Your task to perform on an android device: Go to Google maps Image 0: 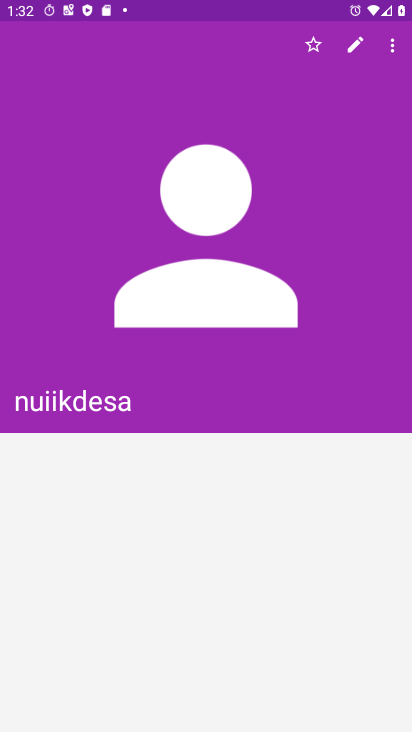
Step 0: press home button
Your task to perform on an android device: Go to Google maps Image 1: 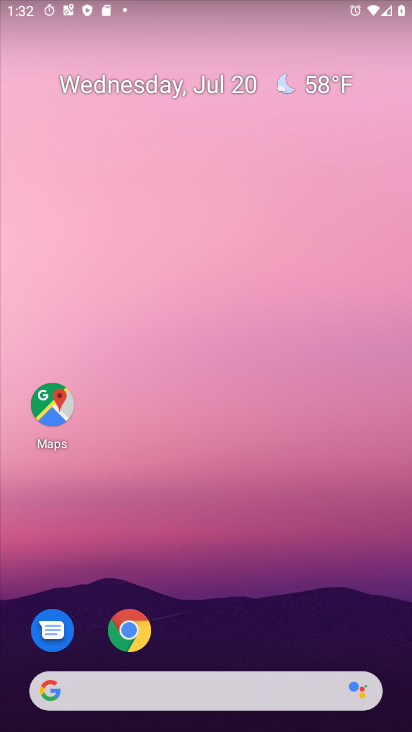
Step 1: click (38, 389)
Your task to perform on an android device: Go to Google maps Image 2: 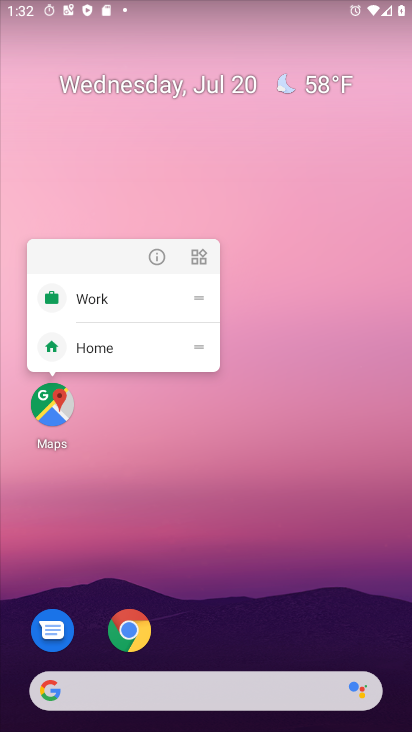
Step 2: click (55, 411)
Your task to perform on an android device: Go to Google maps Image 3: 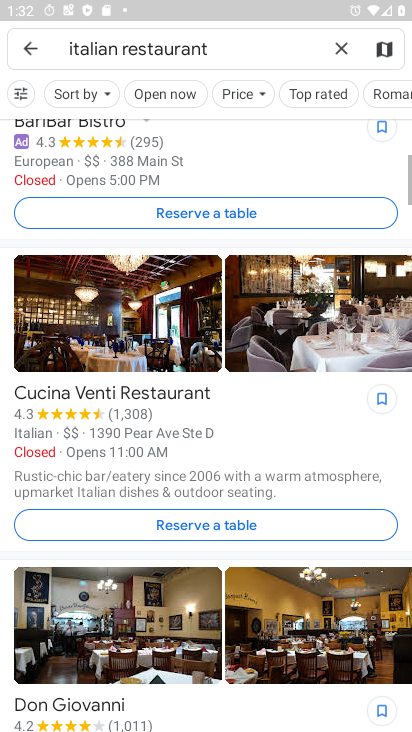
Step 3: click (27, 48)
Your task to perform on an android device: Go to Google maps Image 4: 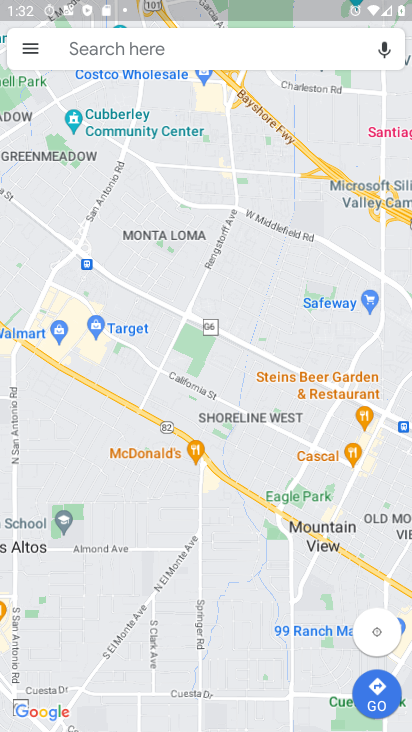
Step 4: task complete